Your task to perform on an android device: Open the calendar and show me this week's events Image 0: 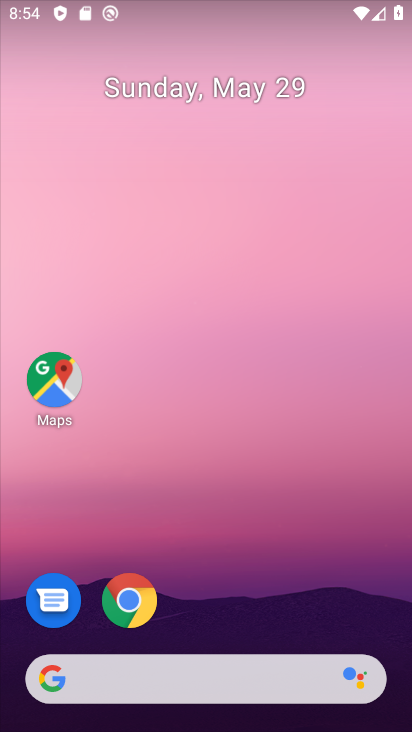
Step 0: drag from (220, 725) to (227, 37)
Your task to perform on an android device: Open the calendar and show me this week's events Image 1: 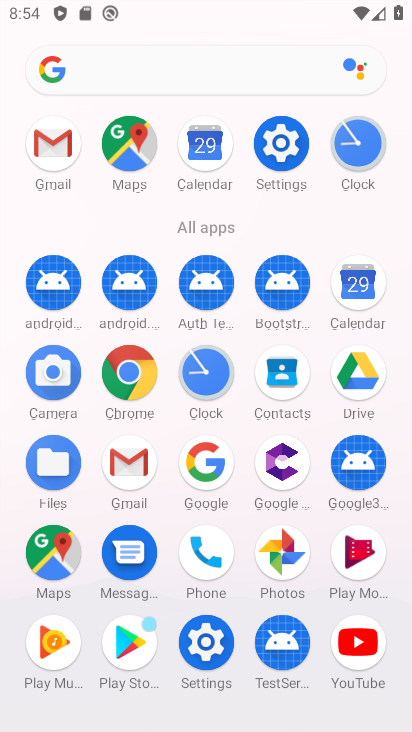
Step 1: click (349, 284)
Your task to perform on an android device: Open the calendar and show me this week's events Image 2: 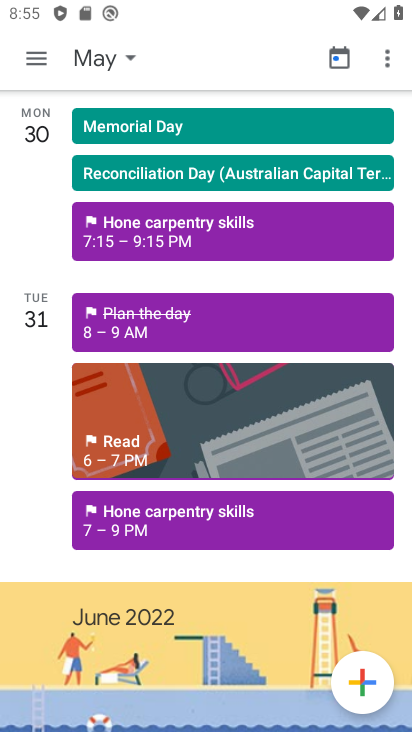
Step 2: click (29, 57)
Your task to perform on an android device: Open the calendar and show me this week's events Image 3: 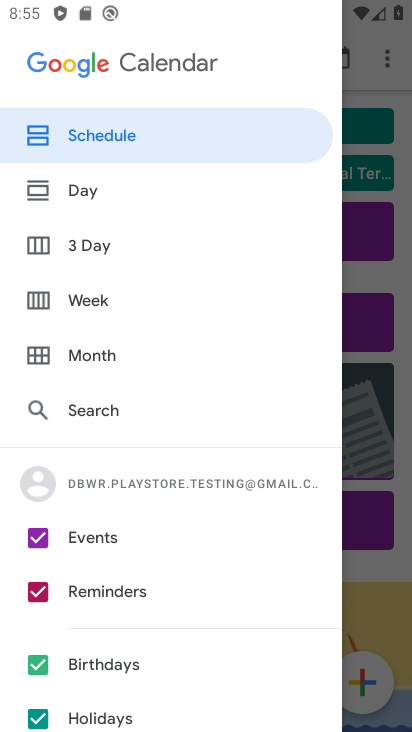
Step 3: drag from (100, 691) to (113, 507)
Your task to perform on an android device: Open the calendar and show me this week's events Image 4: 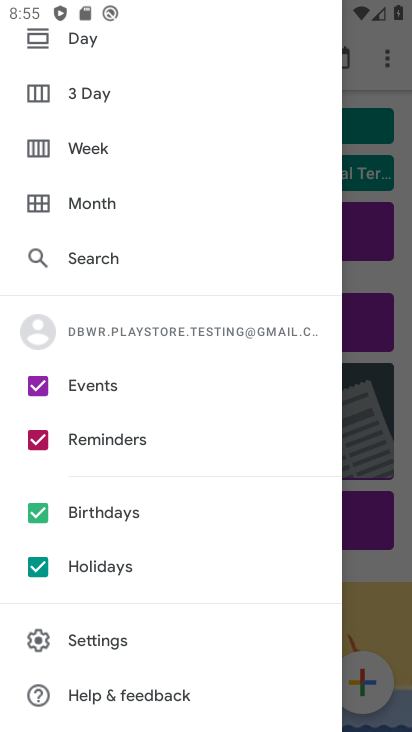
Step 4: click (38, 568)
Your task to perform on an android device: Open the calendar and show me this week's events Image 5: 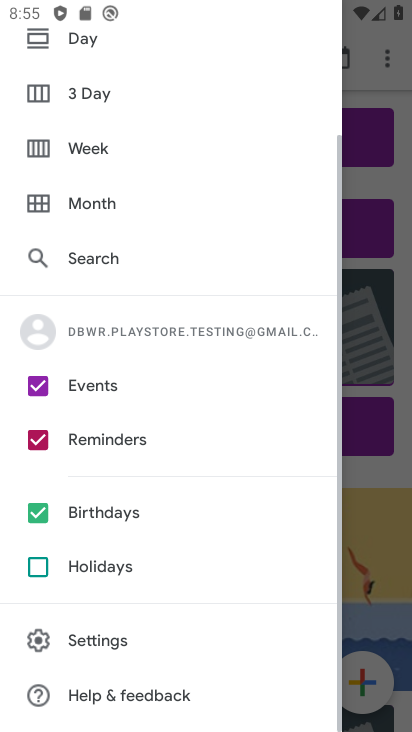
Step 5: click (38, 508)
Your task to perform on an android device: Open the calendar and show me this week's events Image 6: 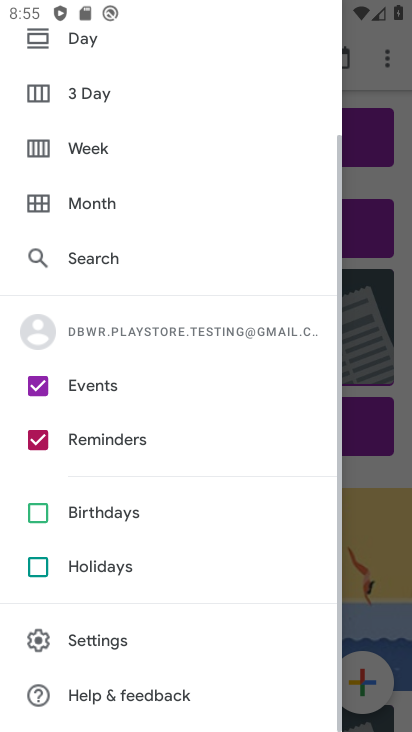
Step 6: click (28, 439)
Your task to perform on an android device: Open the calendar and show me this week's events Image 7: 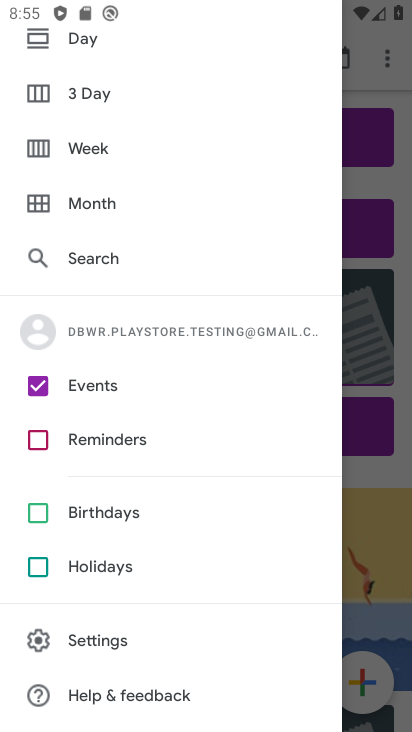
Step 7: drag from (271, 164) to (250, 444)
Your task to perform on an android device: Open the calendar and show me this week's events Image 8: 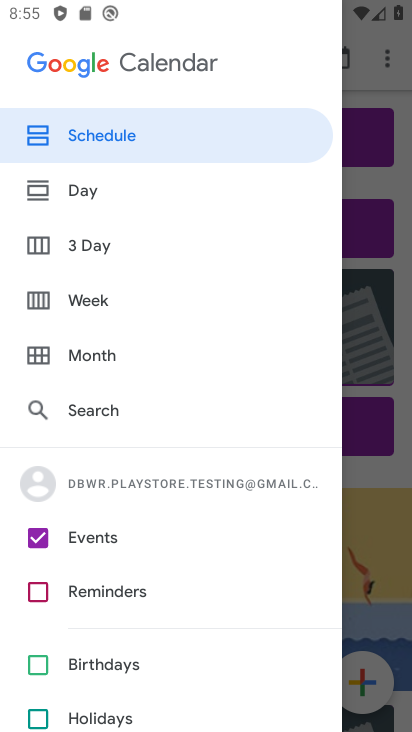
Step 8: click (83, 296)
Your task to perform on an android device: Open the calendar and show me this week's events Image 9: 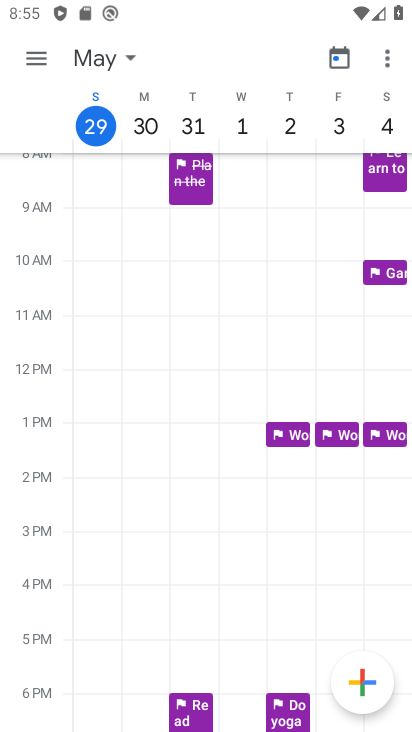
Step 9: task complete